Your task to perform on an android device: Show me recent news Image 0: 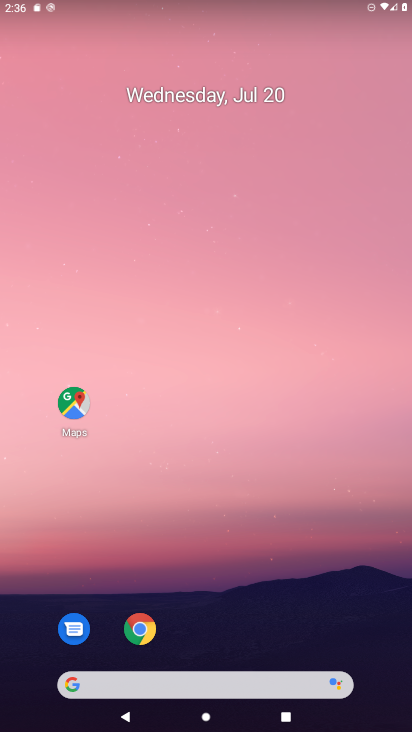
Step 0: drag from (234, 615) to (234, 395)
Your task to perform on an android device: Show me recent news Image 1: 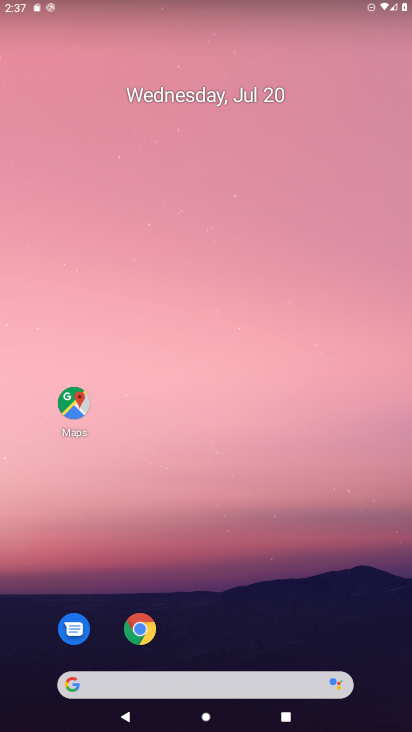
Step 1: drag from (259, 606) to (252, 249)
Your task to perform on an android device: Show me recent news Image 2: 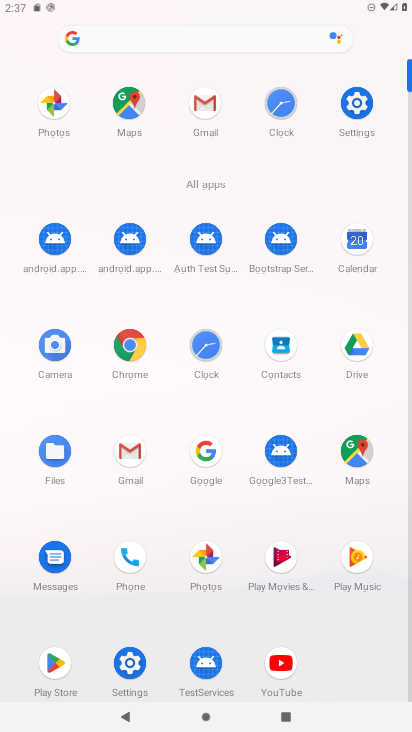
Step 2: click (131, 345)
Your task to perform on an android device: Show me recent news Image 3: 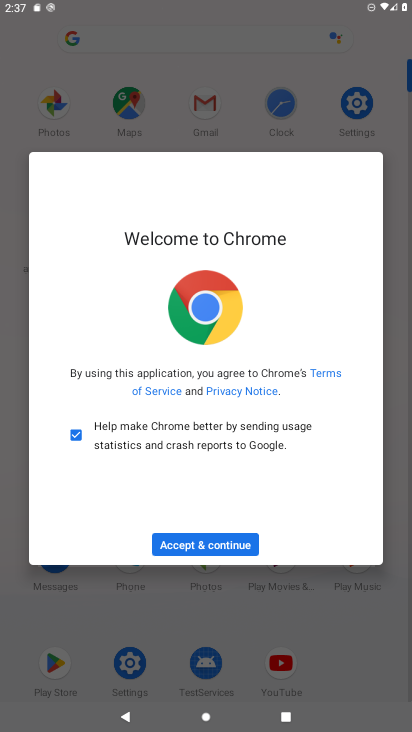
Step 3: click (192, 537)
Your task to perform on an android device: Show me recent news Image 4: 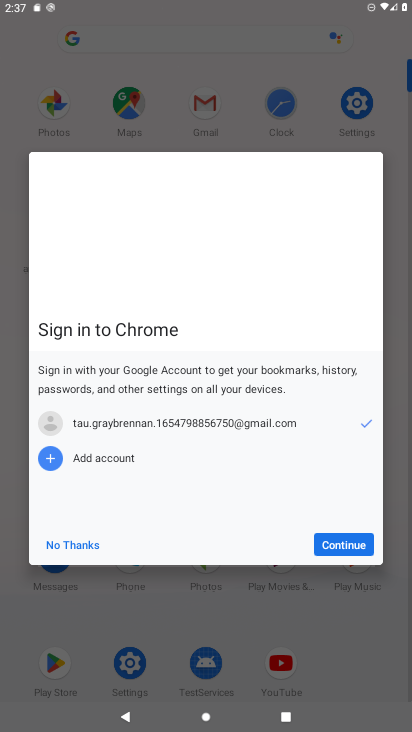
Step 4: click (352, 541)
Your task to perform on an android device: Show me recent news Image 5: 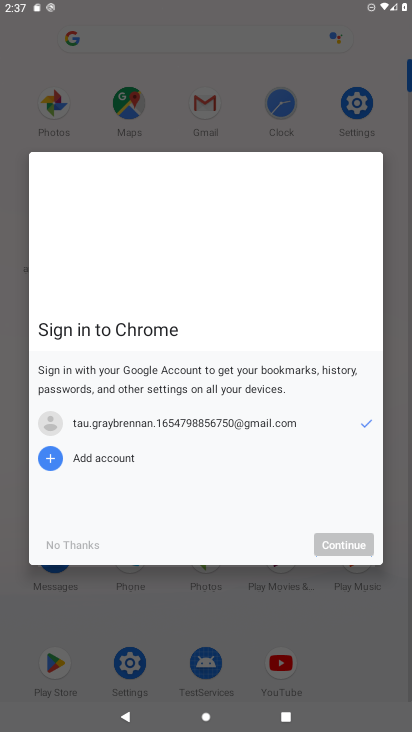
Step 5: click (352, 541)
Your task to perform on an android device: Show me recent news Image 6: 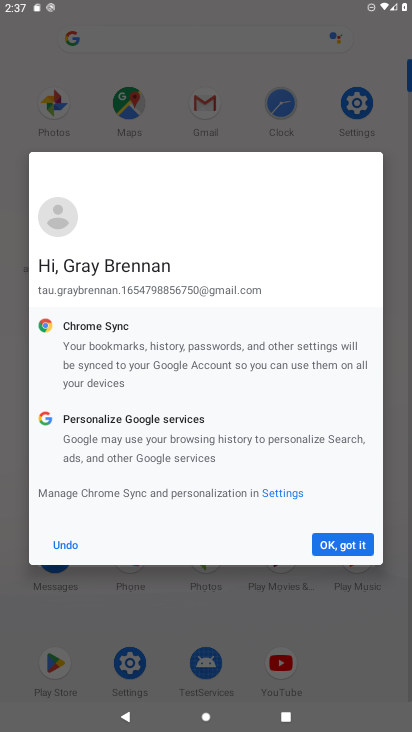
Step 6: click (371, 542)
Your task to perform on an android device: Show me recent news Image 7: 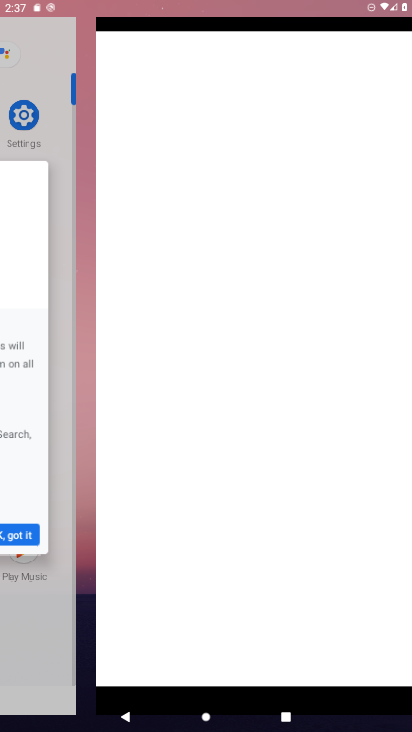
Step 7: click (371, 542)
Your task to perform on an android device: Show me recent news Image 8: 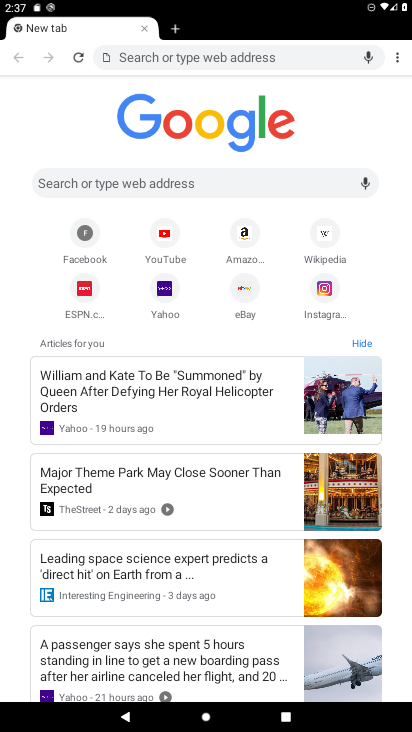
Step 8: click (185, 177)
Your task to perform on an android device: Show me recent news Image 9: 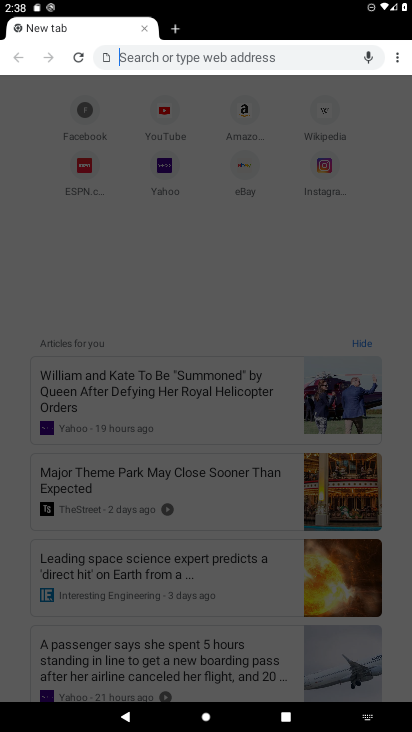
Step 9: type "Show me recent news"
Your task to perform on an android device: Show me recent news Image 10: 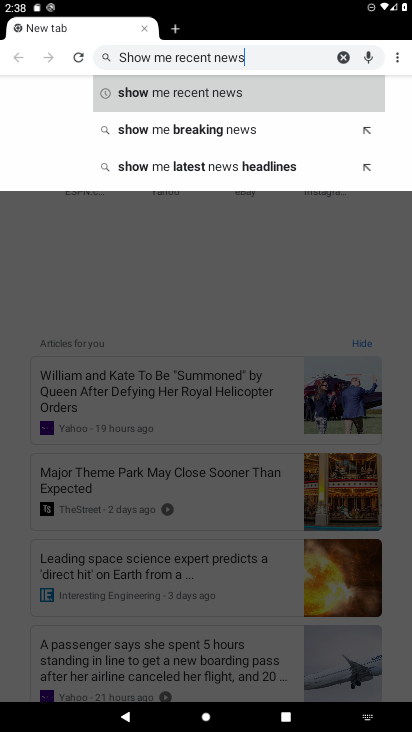
Step 10: click (206, 109)
Your task to perform on an android device: Show me recent news Image 11: 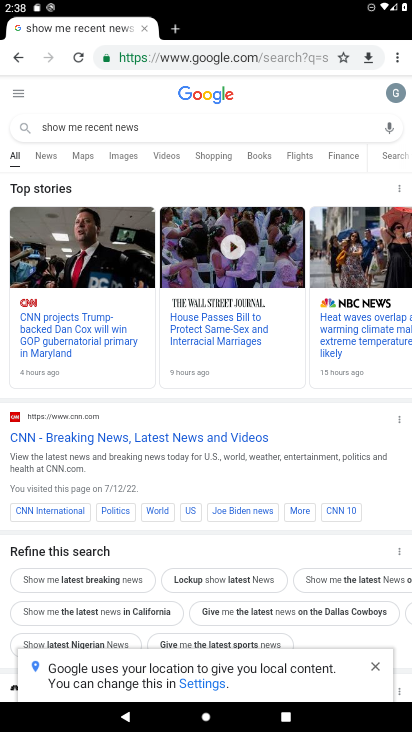
Step 11: task complete